Your task to perform on an android device: open device folders in google photos Image 0: 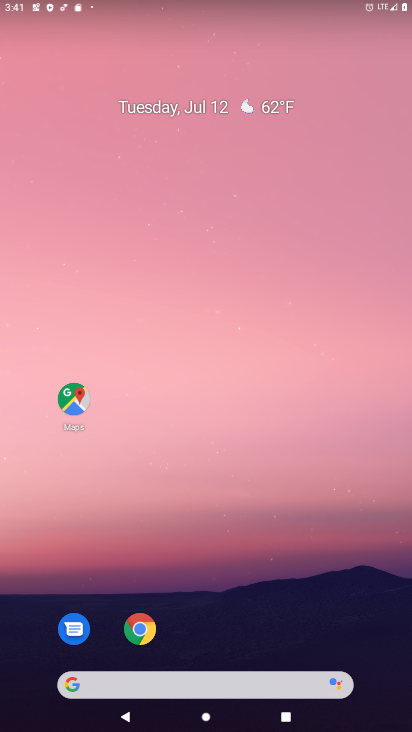
Step 0: drag from (214, 644) to (225, 67)
Your task to perform on an android device: open device folders in google photos Image 1: 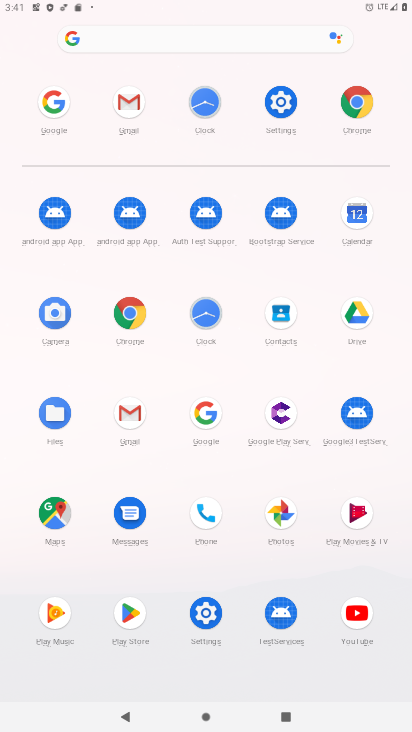
Step 1: click (292, 514)
Your task to perform on an android device: open device folders in google photos Image 2: 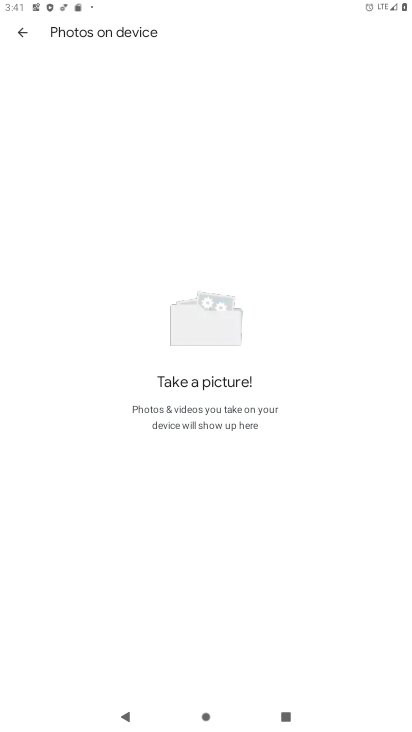
Step 2: click (14, 28)
Your task to perform on an android device: open device folders in google photos Image 3: 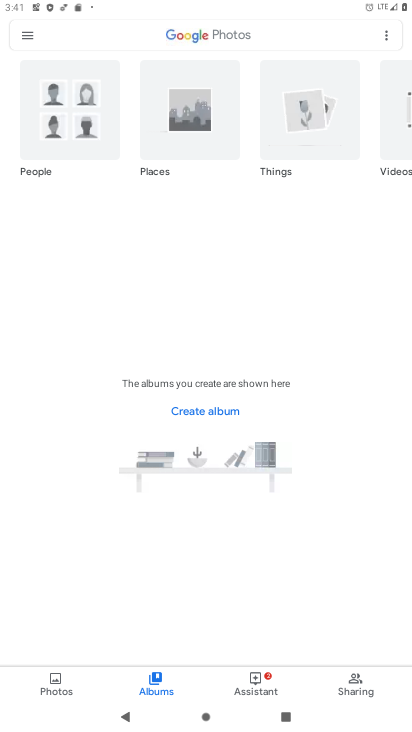
Step 3: click (32, 41)
Your task to perform on an android device: open device folders in google photos Image 4: 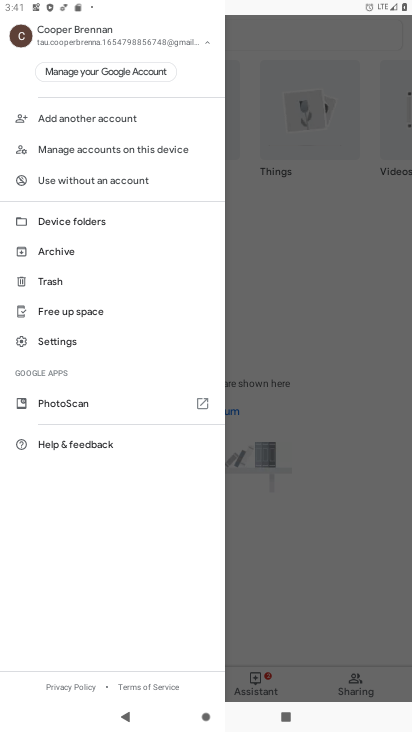
Step 4: click (66, 221)
Your task to perform on an android device: open device folders in google photos Image 5: 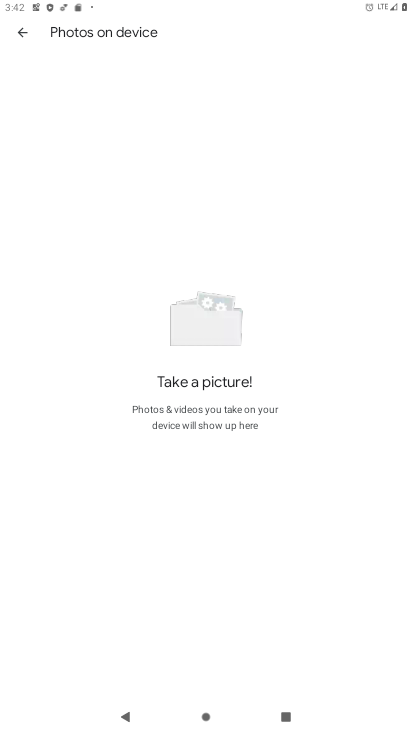
Step 5: task complete